Your task to perform on an android device: Open my contact list Image 0: 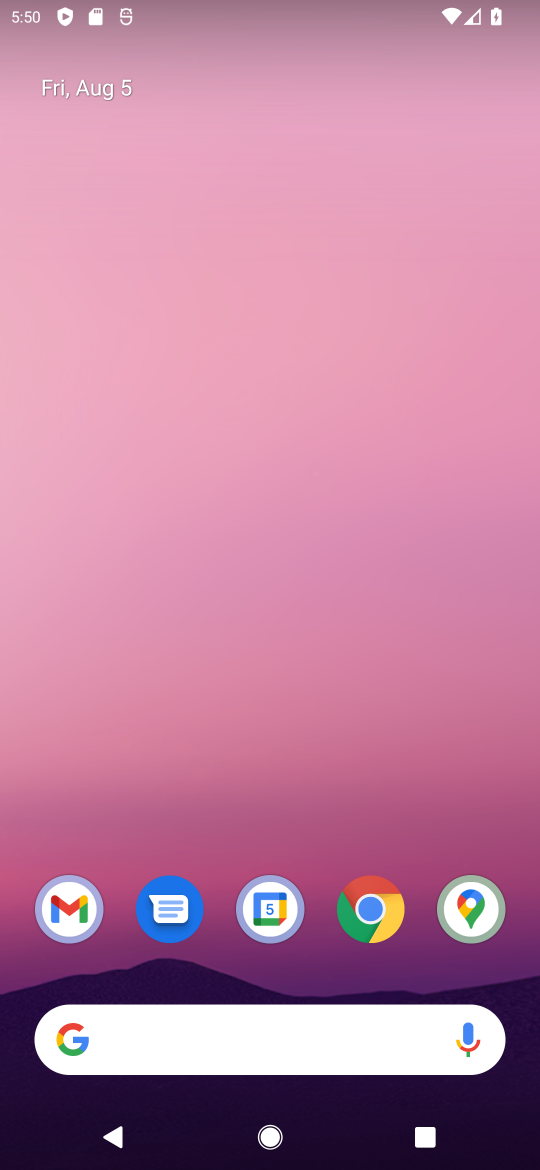
Step 0: press home button
Your task to perform on an android device: Open my contact list Image 1: 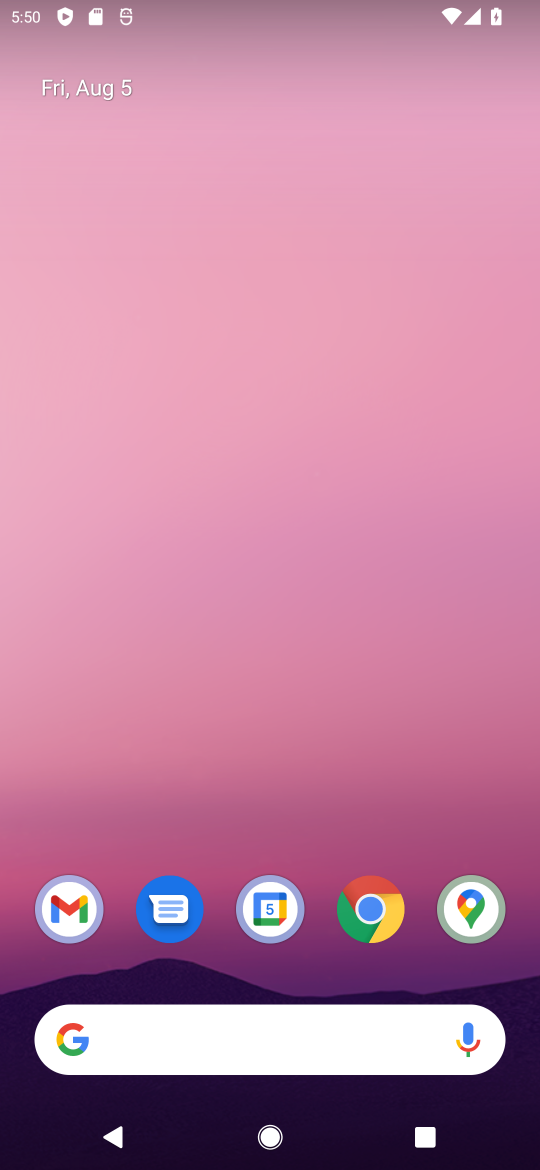
Step 1: drag from (295, 954) to (137, 20)
Your task to perform on an android device: Open my contact list Image 2: 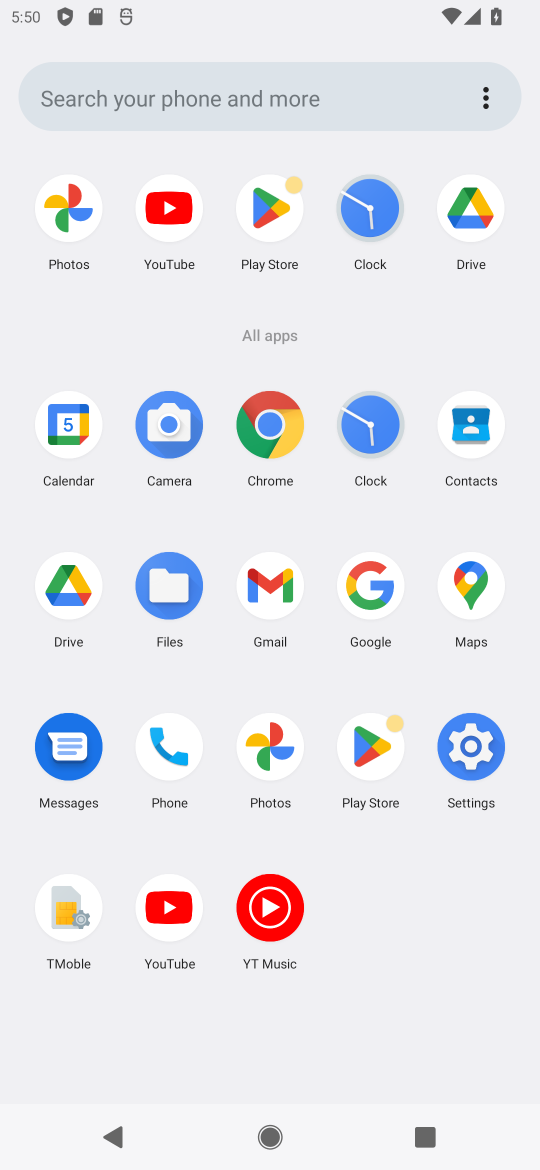
Step 2: click (469, 446)
Your task to perform on an android device: Open my contact list Image 3: 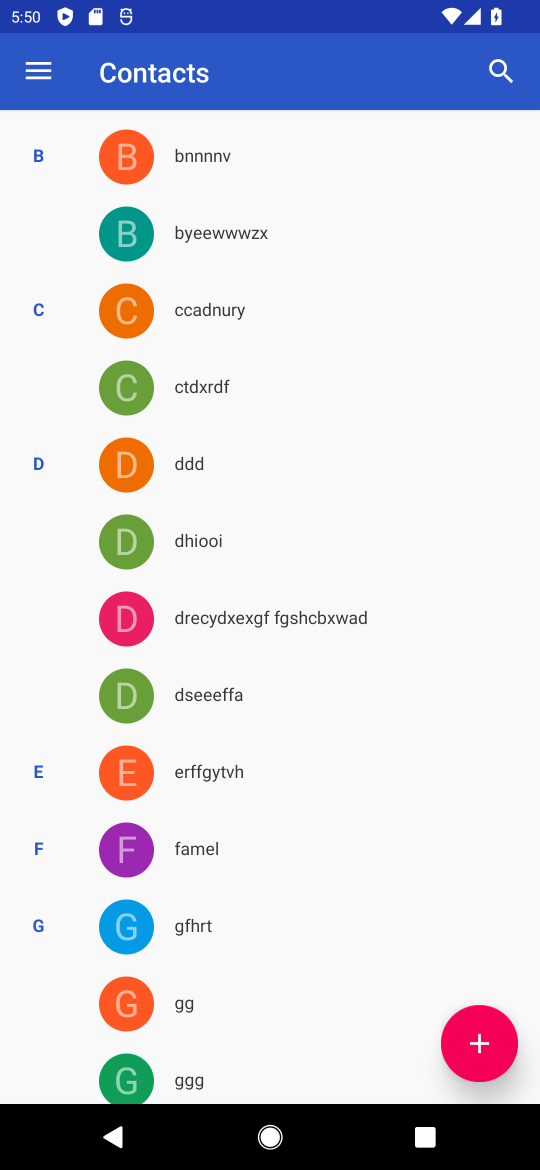
Step 3: task complete